Your task to perform on an android device: Open eBay Image 0: 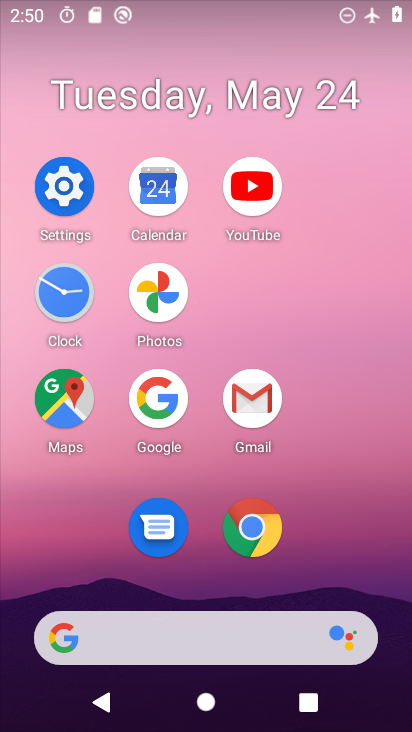
Step 0: click (256, 523)
Your task to perform on an android device: Open eBay Image 1: 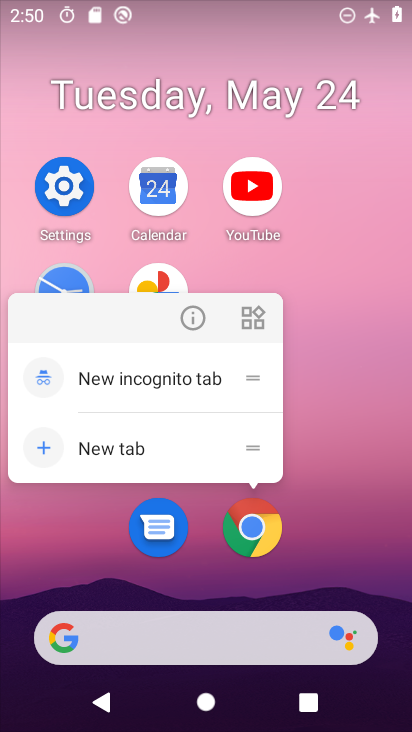
Step 1: click (250, 535)
Your task to perform on an android device: Open eBay Image 2: 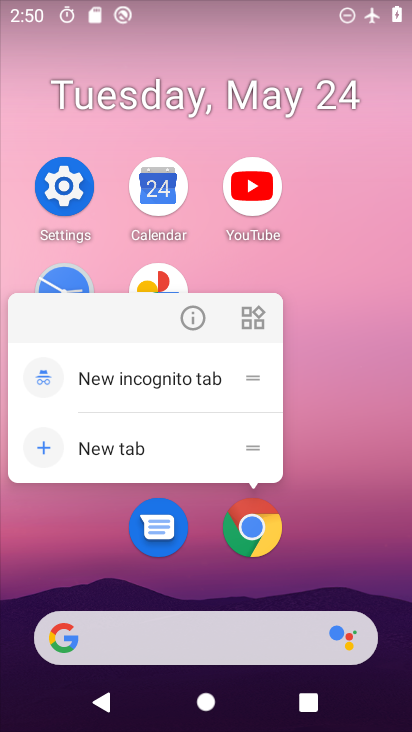
Step 2: click (237, 544)
Your task to perform on an android device: Open eBay Image 3: 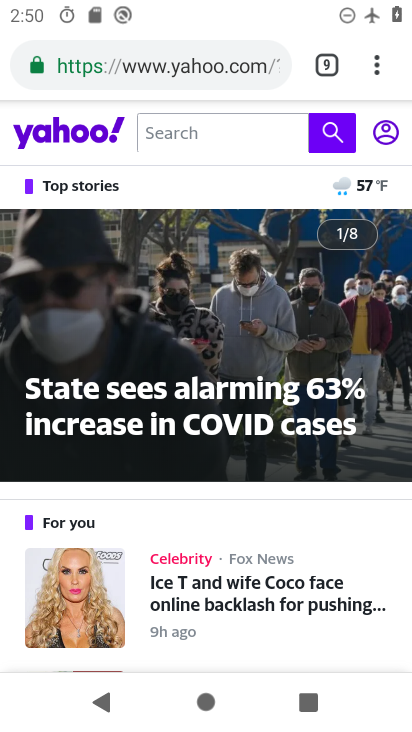
Step 3: click (314, 72)
Your task to perform on an android device: Open eBay Image 4: 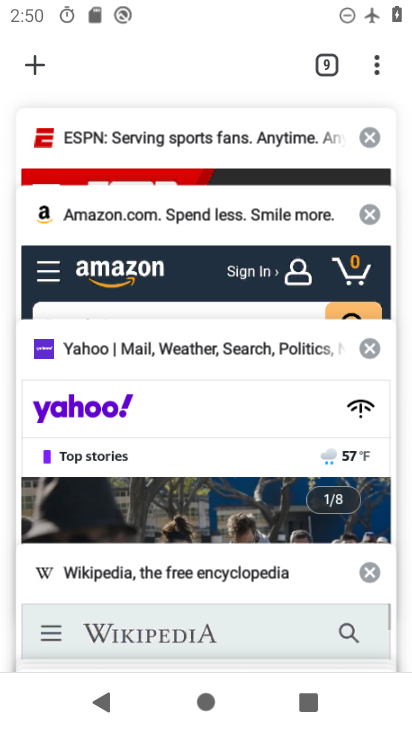
Step 4: drag from (235, 157) to (251, 488)
Your task to perform on an android device: Open eBay Image 5: 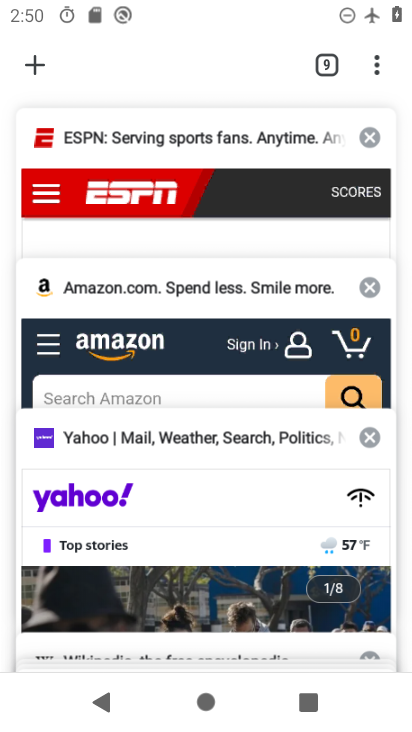
Step 5: drag from (184, 219) to (191, 553)
Your task to perform on an android device: Open eBay Image 6: 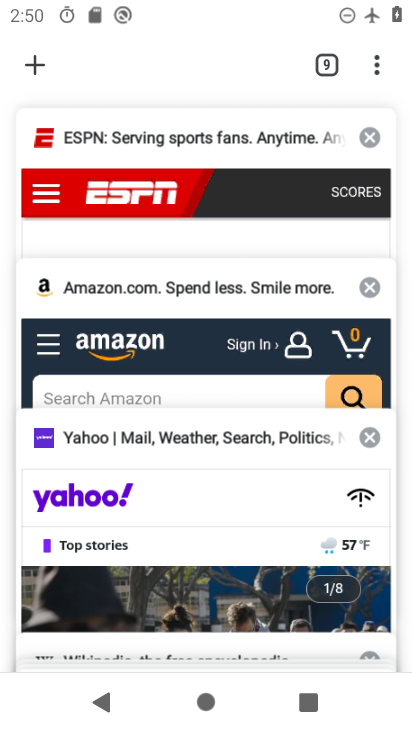
Step 6: drag from (199, 280) to (226, 560)
Your task to perform on an android device: Open eBay Image 7: 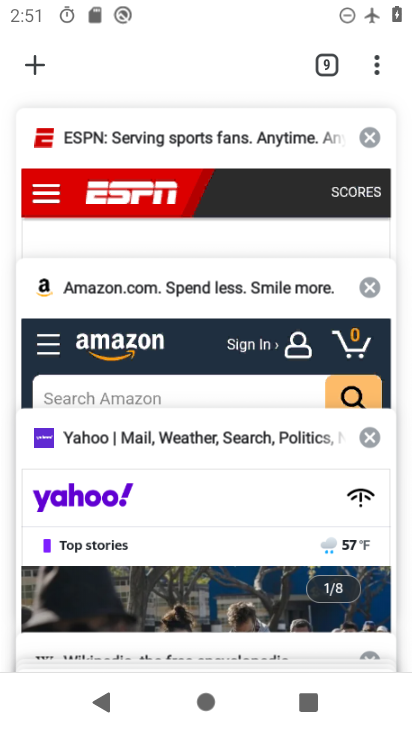
Step 7: drag from (282, 497) to (205, 96)
Your task to perform on an android device: Open eBay Image 8: 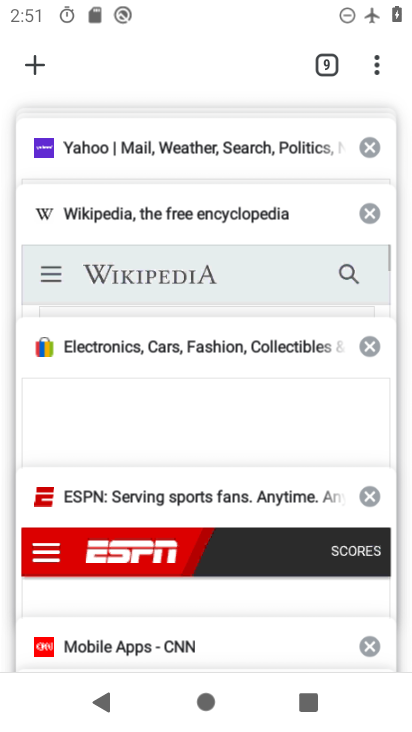
Step 8: drag from (188, 523) to (197, 174)
Your task to perform on an android device: Open eBay Image 9: 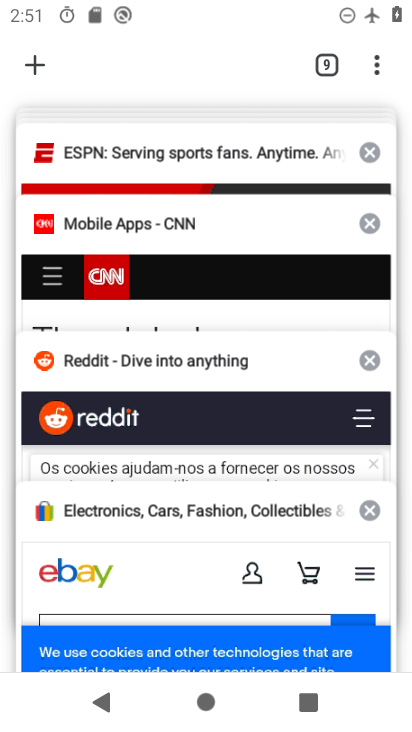
Step 9: click (134, 559)
Your task to perform on an android device: Open eBay Image 10: 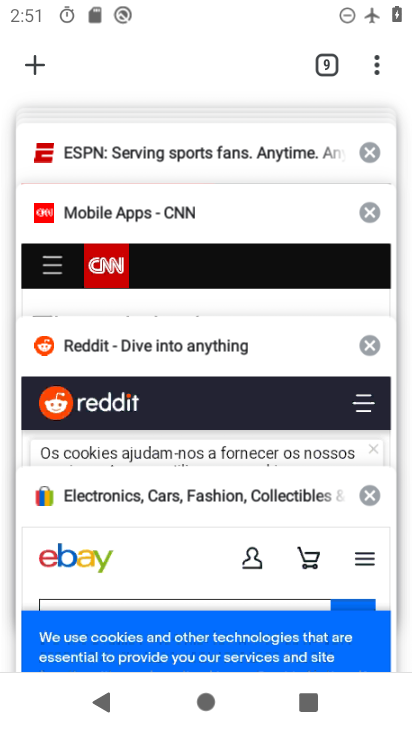
Step 10: click (178, 573)
Your task to perform on an android device: Open eBay Image 11: 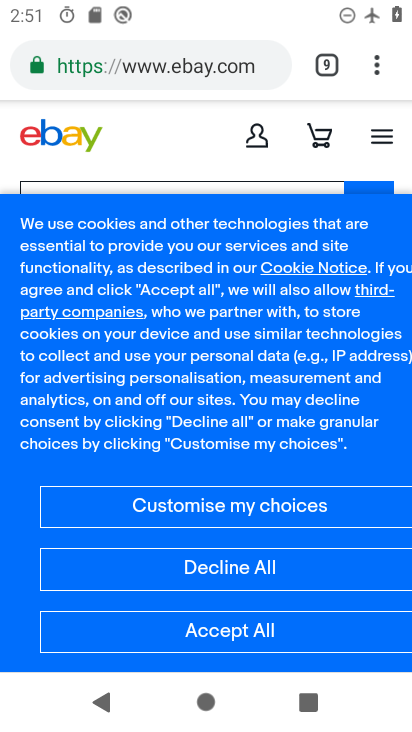
Step 11: task complete